Your task to perform on an android device: What's a good restaurant in San Diego? Image 0: 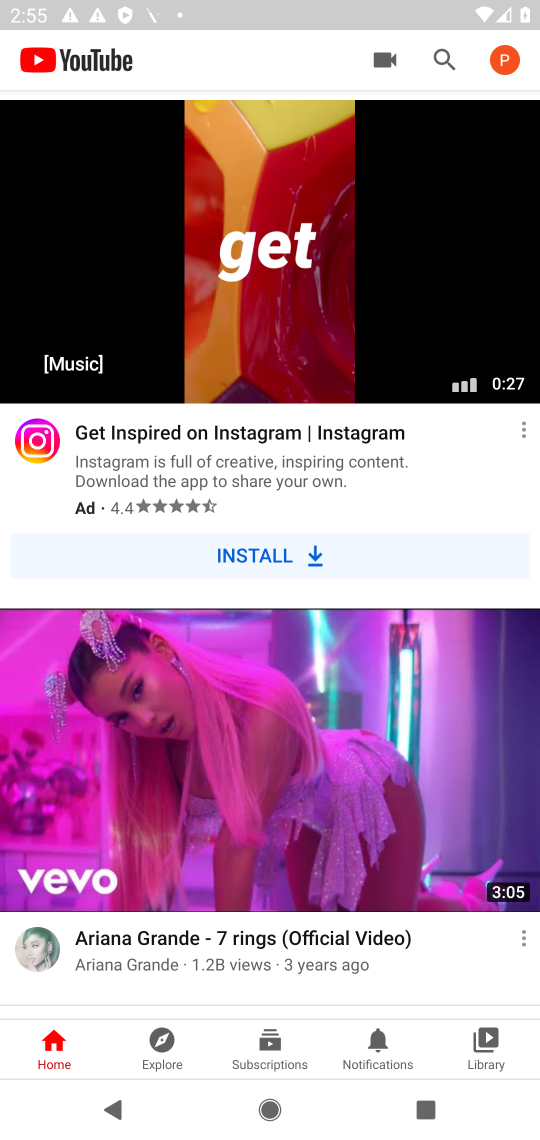
Step 0: press home button
Your task to perform on an android device: What's a good restaurant in San Diego? Image 1: 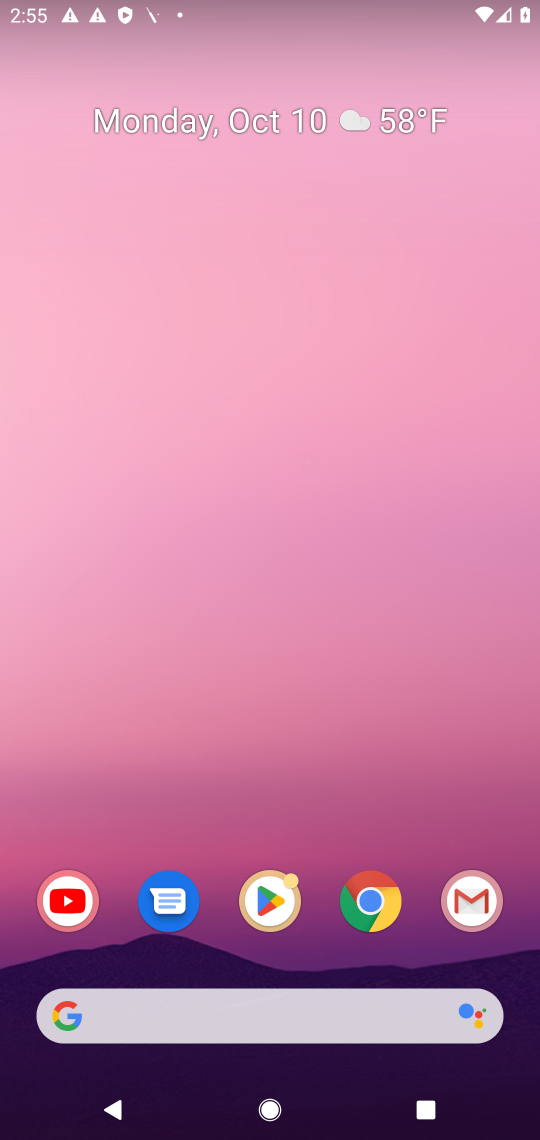
Step 1: drag from (294, 994) to (127, 11)
Your task to perform on an android device: What's a good restaurant in San Diego? Image 2: 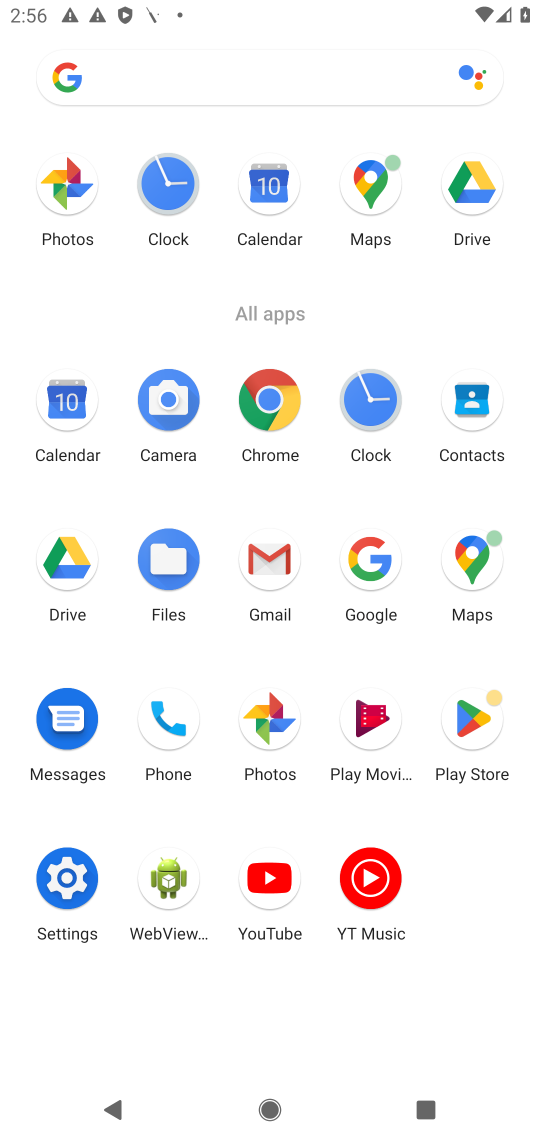
Step 2: click (382, 595)
Your task to perform on an android device: What's a good restaurant in San Diego? Image 3: 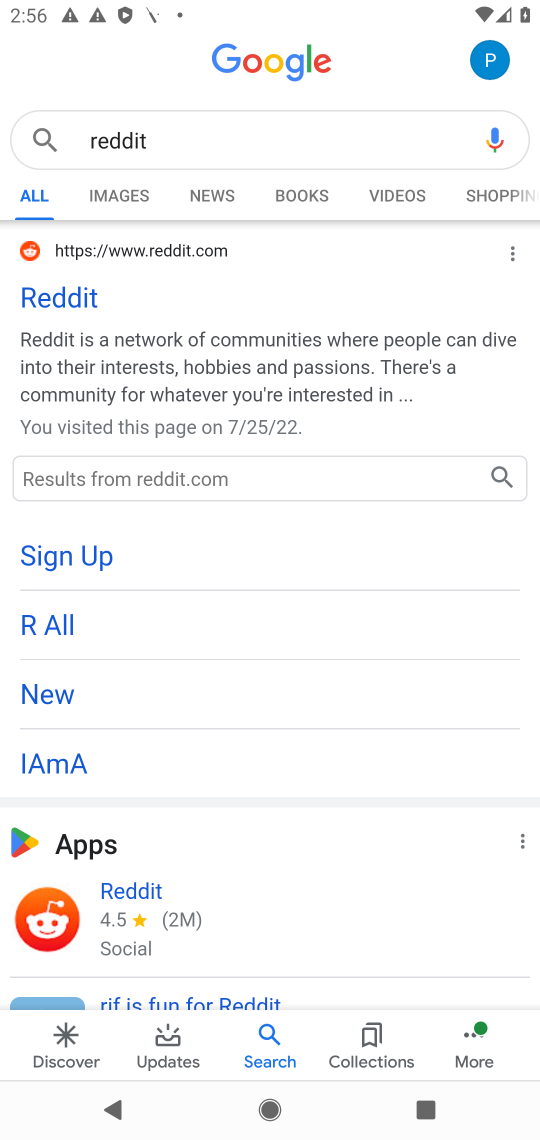
Step 3: click (240, 134)
Your task to perform on an android device: What's a good restaurant in San Diego? Image 4: 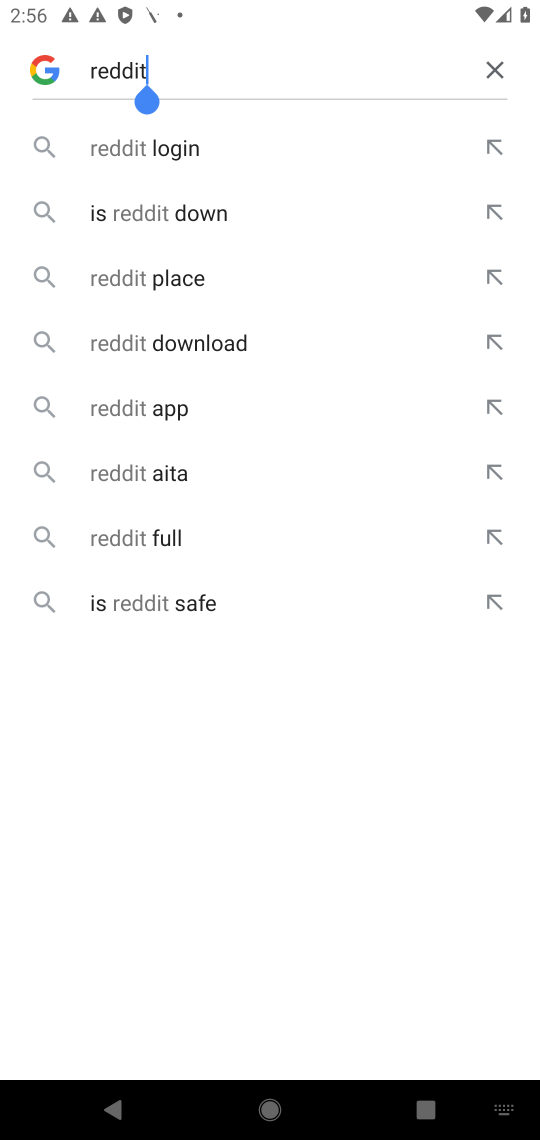
Step 4: click (495, 77)
Your task to perform on an android device: What's a good restaurant in San Diego? Image 5: 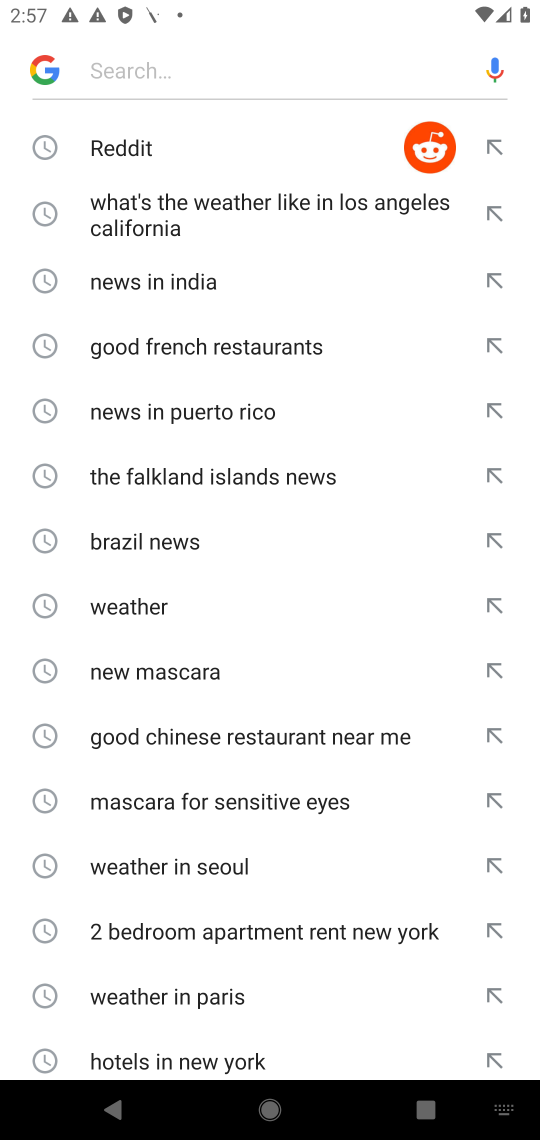
Step 5: type "good restaurant in San Diego?"
Your task to perform on an android device: What's a good restaurant in San Diego? Image 6: 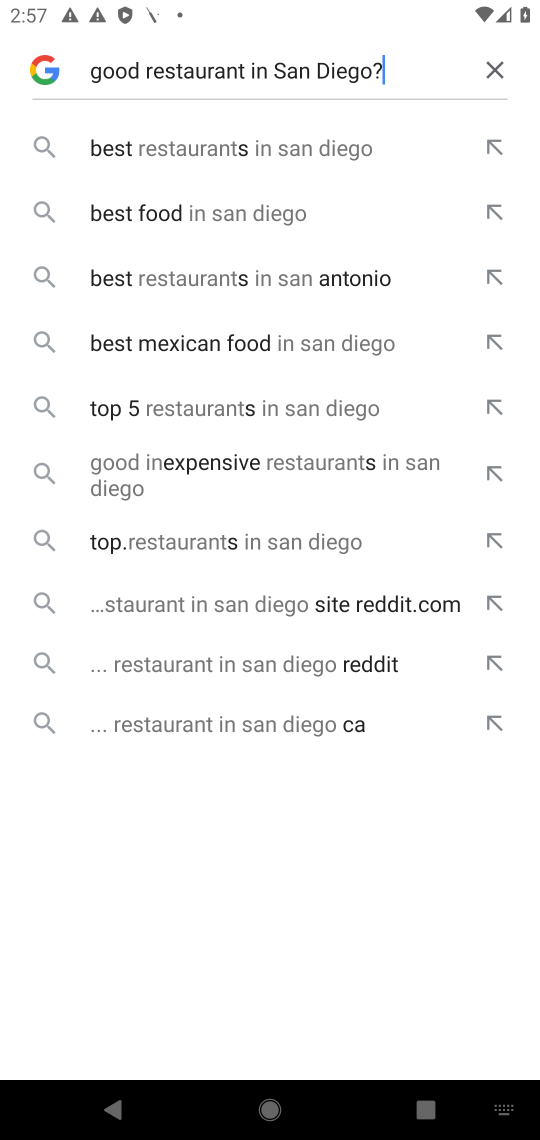
Step 6: click (339, 150)
Your task to perform on an android device: What's a good restaurant in San Diego? Image 7: 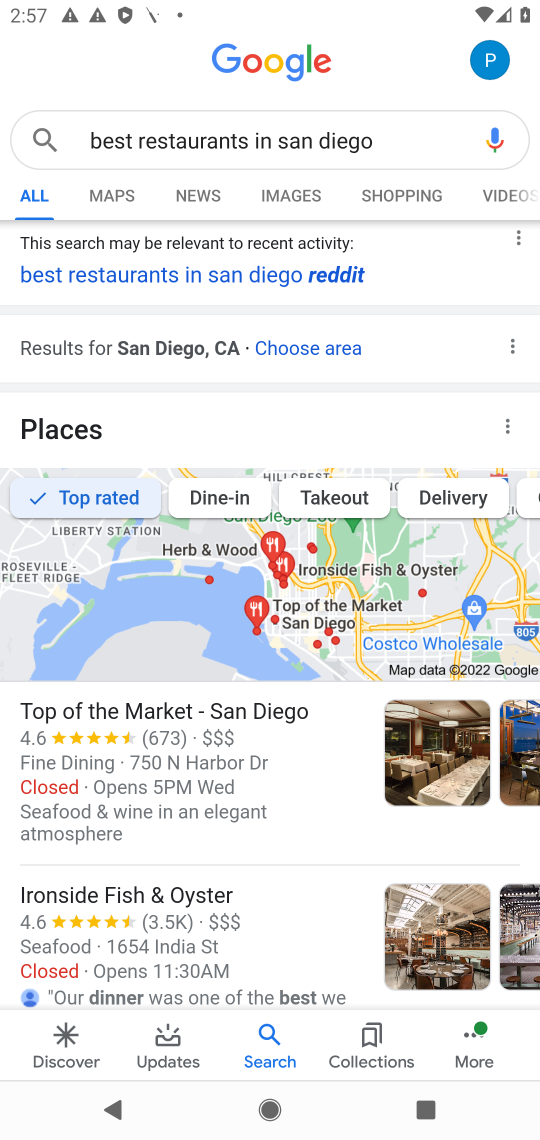
Step 7: task complete